Your task to perform on an android device: manage bookmarks in the chrome app Image 0: 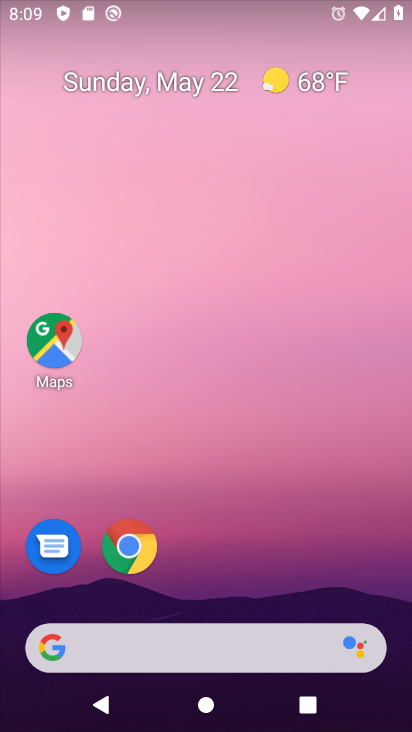
Step 0: drag from (271, 712) to (154, 20)
Your task to perform on an android device: manage bookmarks in the chrome app Image 1: 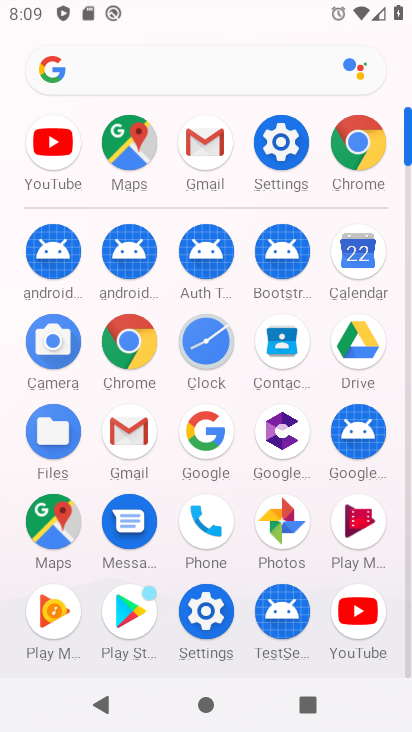
Step 1: click (349, 146)
Your task to perform on an android device: manage bookmarks in the chrome app Image 2: 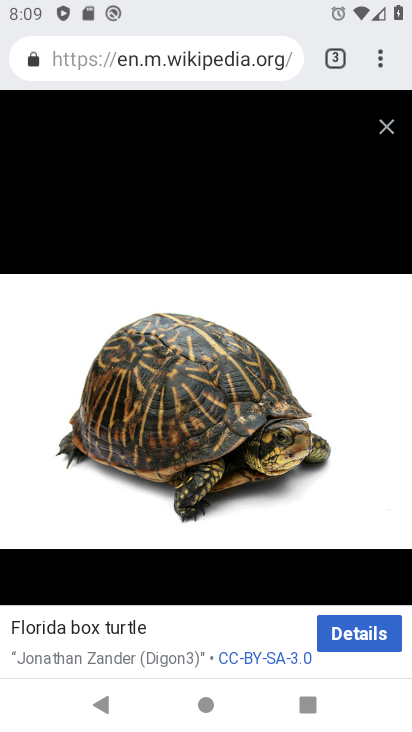
Step 2: click (377, 53)
Your task to perform on an android device: manage bookmarks in the chrome app Image 3: 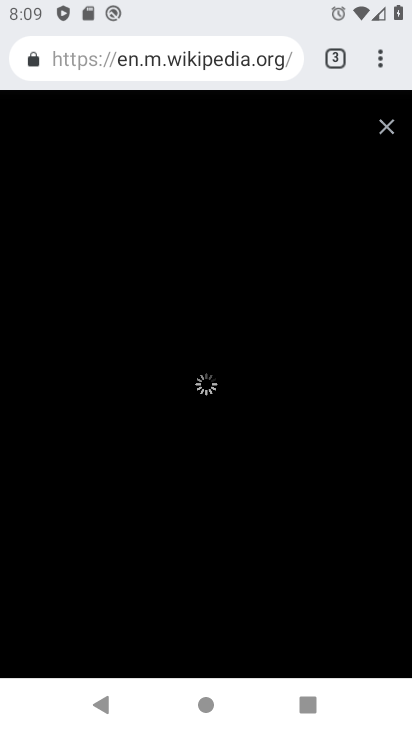
Step 3: click (377, 53)
Your task to perform on an android device: manage bookmarks in the chrome app Image 4: 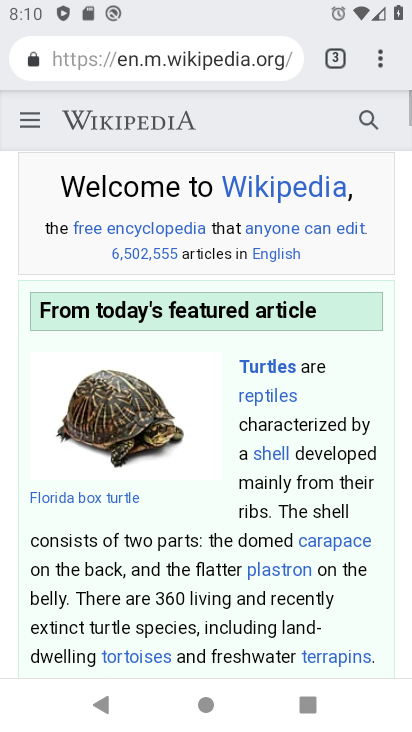
Step 4: click (377, 53)
Your task to perform on an android device: manage bookmarks in the chrome app Image 5: 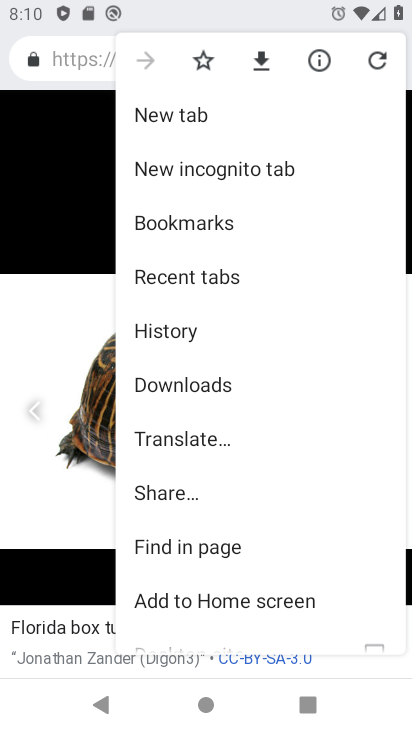
Step 5: click (177, 227)
Your task to perform on an android device: manage bookmarks in the chrome app Image 6: 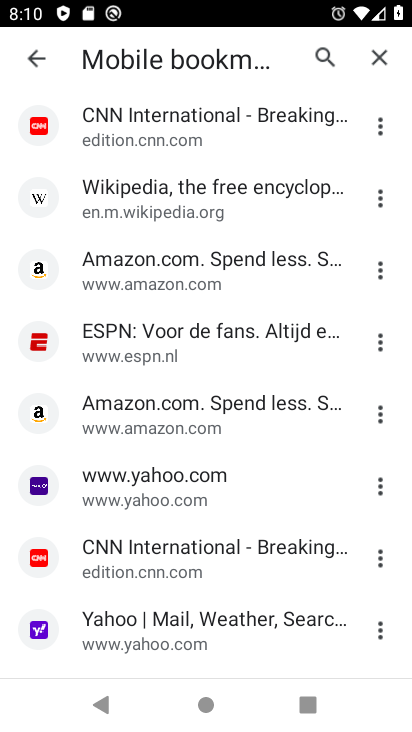
Step 6: task complete